Your task to perform on an android device: Search for Mexican restaurants on Maps Image 0: 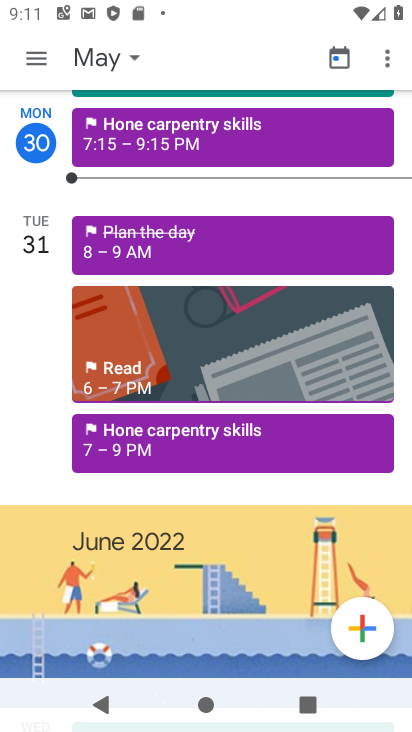
Step 0: press home button
Your task to perform on an android device: Search for Mexican restaurants on Maps Image 1: 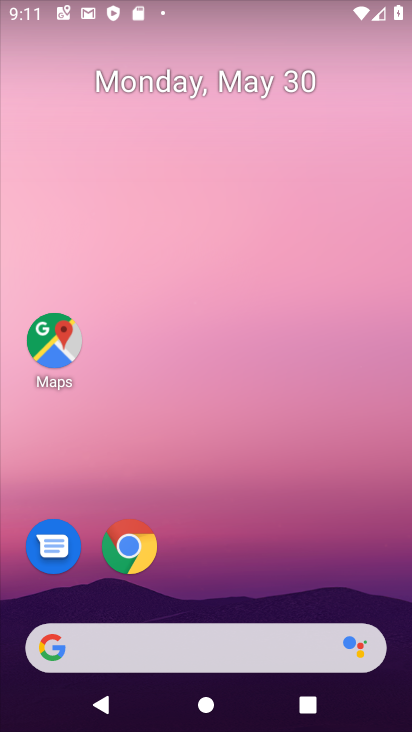
Step 1: drag from (375, 570) to (345, 75)
Your task to perform on an android device: Search for Mexican restaurants on Maps Image 2: 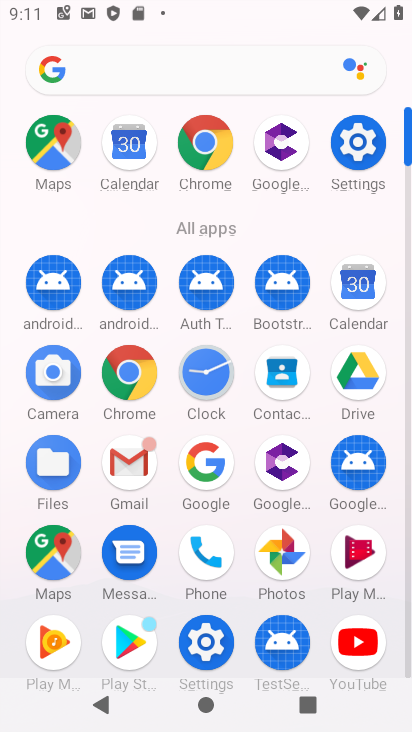
Step 2: click (60, 557)
Your task to perform on an android device: Search for Mexican restaurants on Maps Image 3: 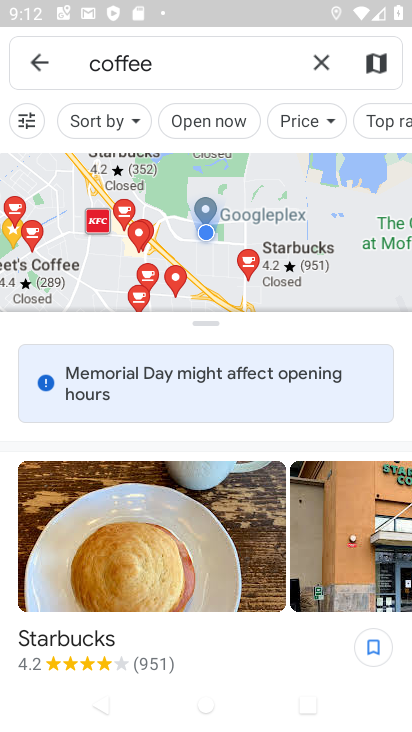
Step 3: click (314, 65)
Your task to perform on an android device: Search for Mexican restaurants on Maps Image 4: 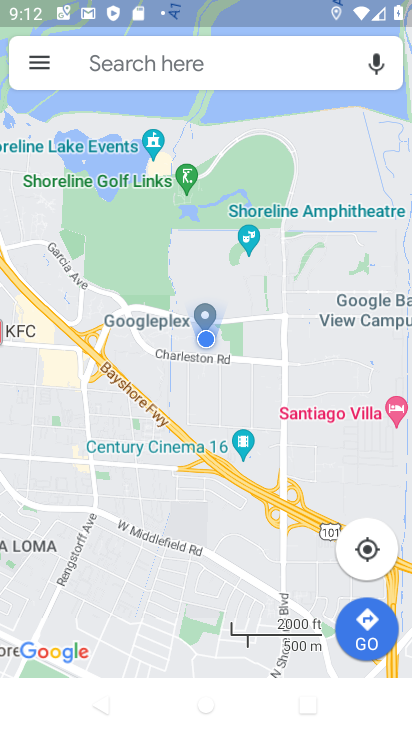
Step 4: click (218, 69)
Your task to perform on an android device: Search for Mexican restaurants on Maps Image 5: 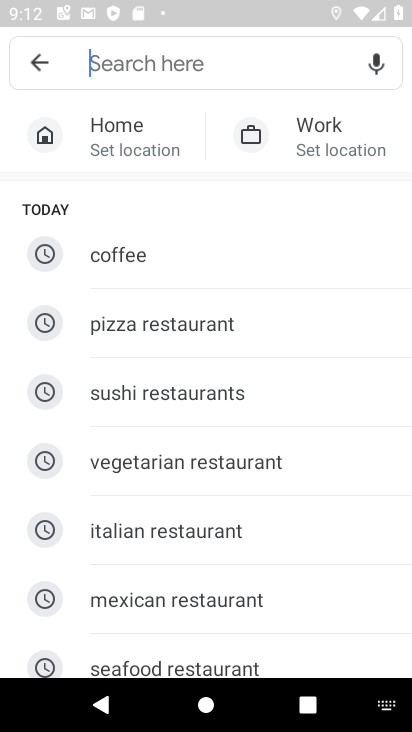
Step 5: click (257, 607)
Your task to perform on an android device: Search for Mexican restaurants on Maps Image 6: 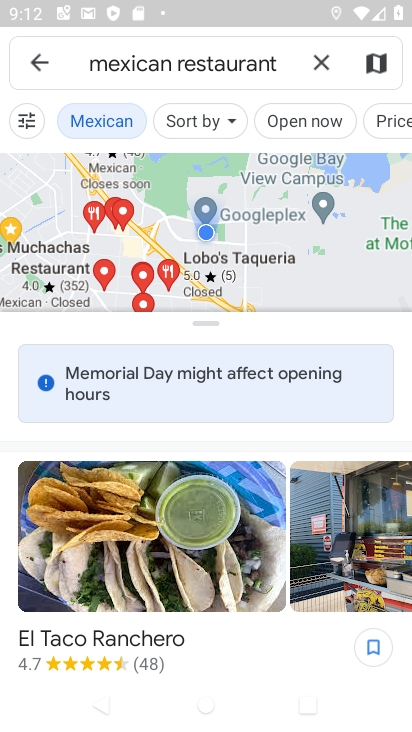
Step 6: task complete